Your task to perform on an android device: Open Google Maps and go to "Timeline" Image 0: 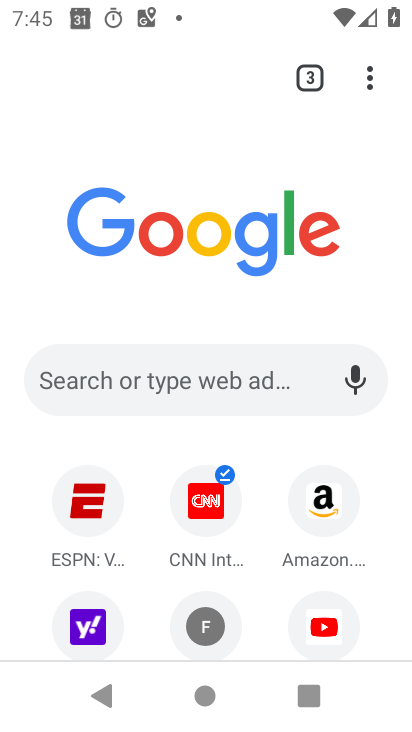
Step 0: press home button
Your task to perform on an android device: Open Google Maps and go to "Timeline" Image 1: 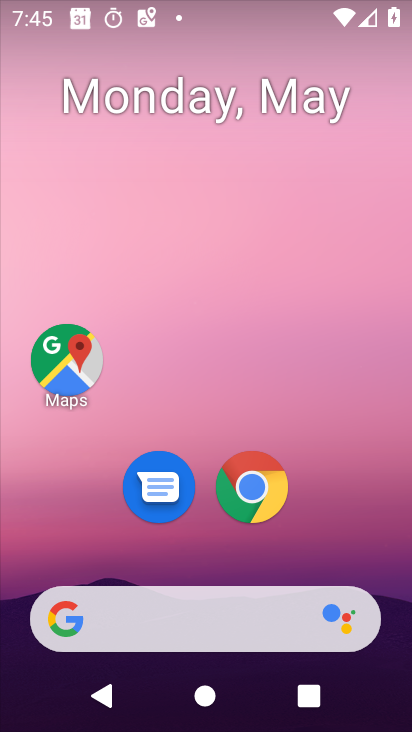
Step 1: drag from (213, 658) to (13, 170)
Your task to perform on an android device: Open Google Maps and go to "Timeline" Image 2: 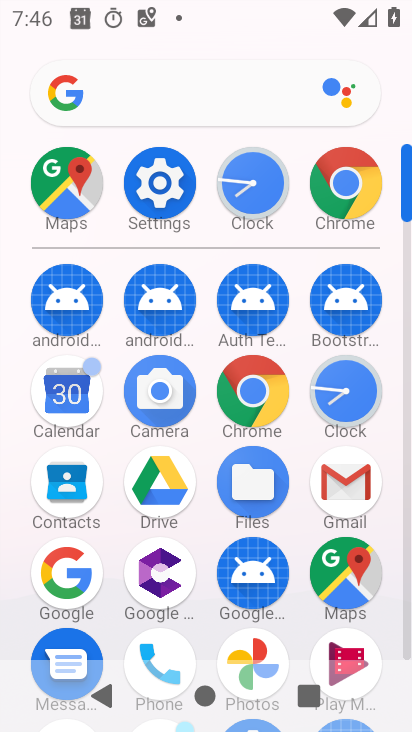
Step 2: click (70, 194)
Your task to perform on an android device: Open Google Maps and go to "Timeline" Image 3: 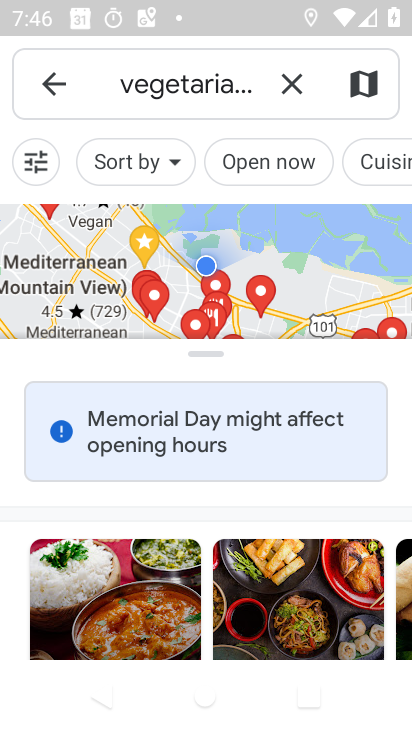
Step 3: click (55, 90)
Your task to perform on an android device: Open Google Maps and go to "Timeline" Image 4: 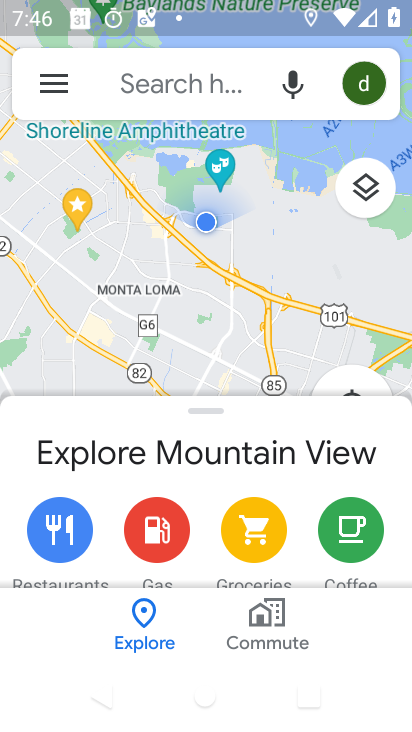
Step 4: click (55, 91)
Your task to perform on an android device: Open Google Maps and go to "Timeline" Image 5: 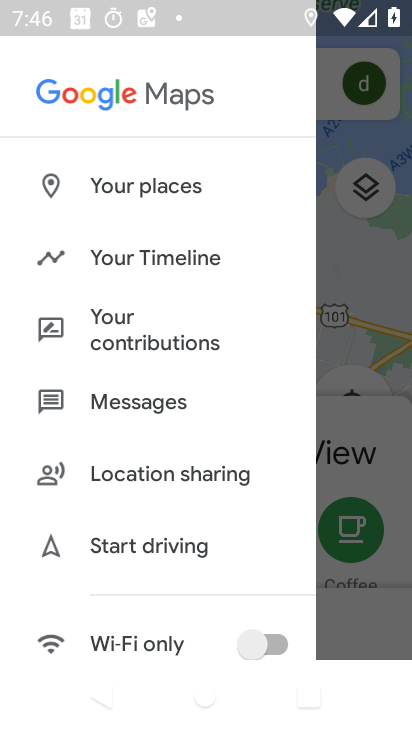
Step 5: click (155, 257)
Your task to perform on an android device: Open Google Maps and go to "Timeline" Image 6: 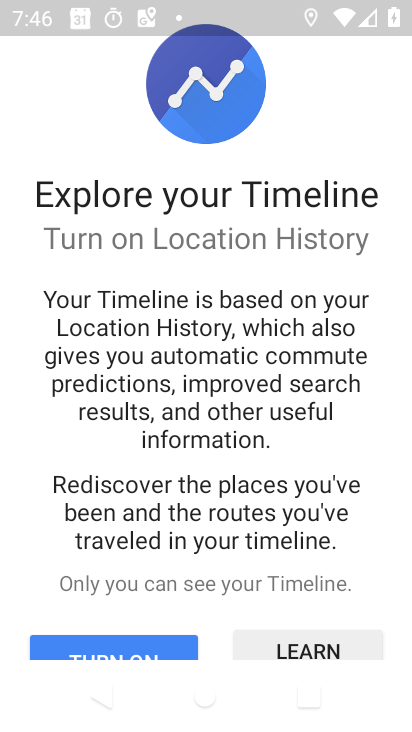
Step 6: drag from (245, 579) to (300, 265)
Your task to perform on an android device: Open Google Maps and go to "Timeline" Image 7: 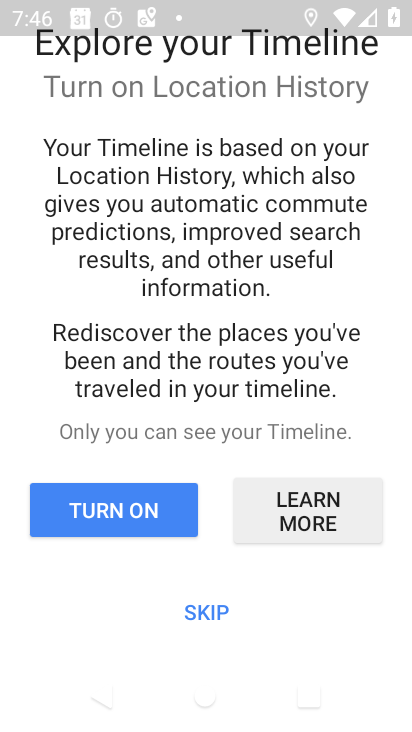
Step 7: click (215, 619)
Your task to perform on an android device: Open Google Maps and go to "Timeline" Image 8: 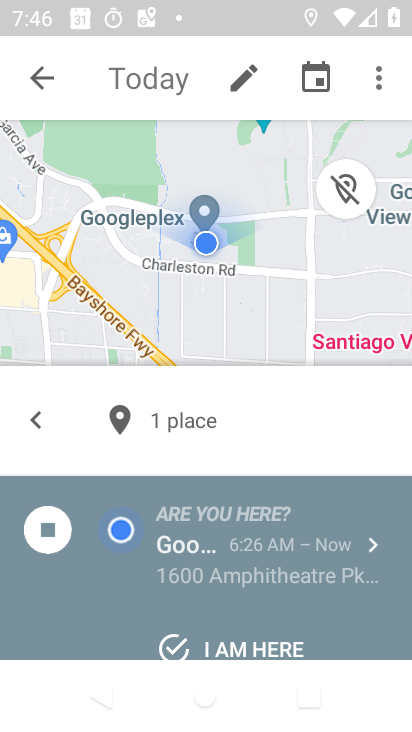
Step 8: task complete